Your task to perform on an android device: Open Google Chrome Image 0: 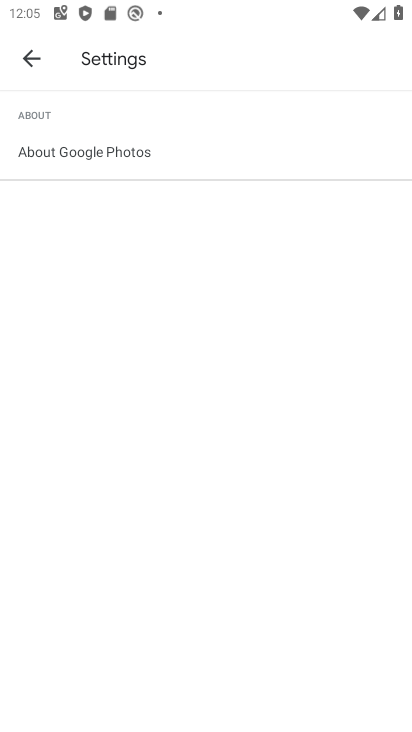
Step 0: press home button
Your task to perform on an android device: Open Google Chrome Image 1: 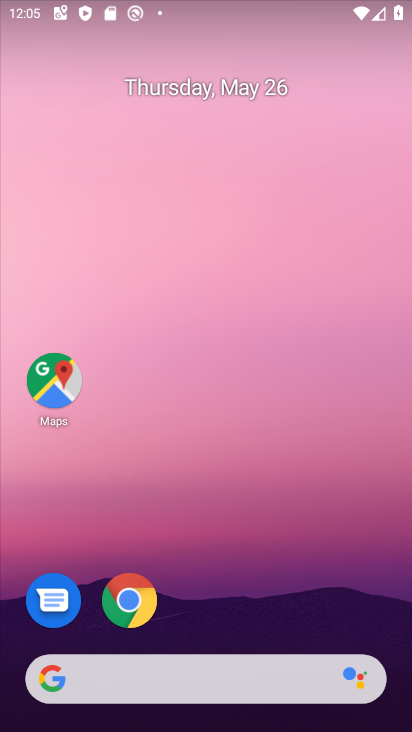
Step 1: click (132, 604)
Your task to perform on an android device: Open Google Chrome Image 2: 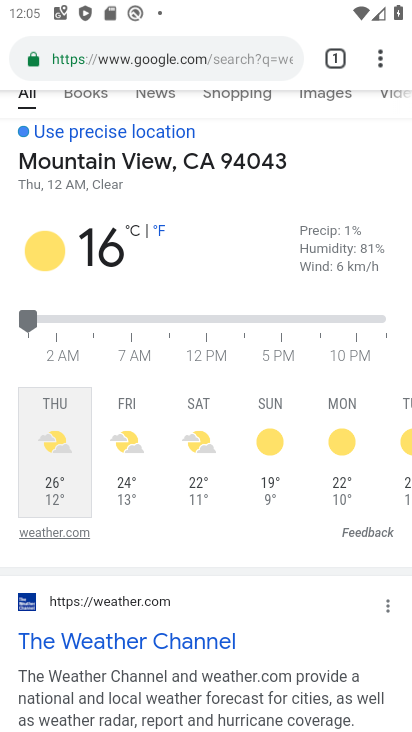
Step 2: task complete